Your task to perform on an android device: Open my contact list Image 0: 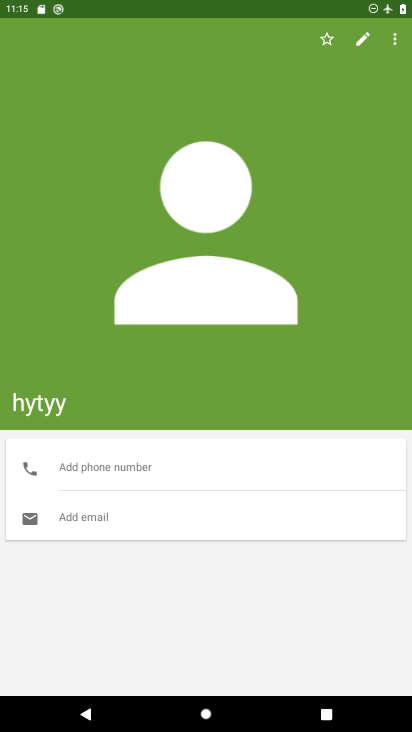
Step 0: press home button
Your task to perform on an android device: Open my contact list Image 1: 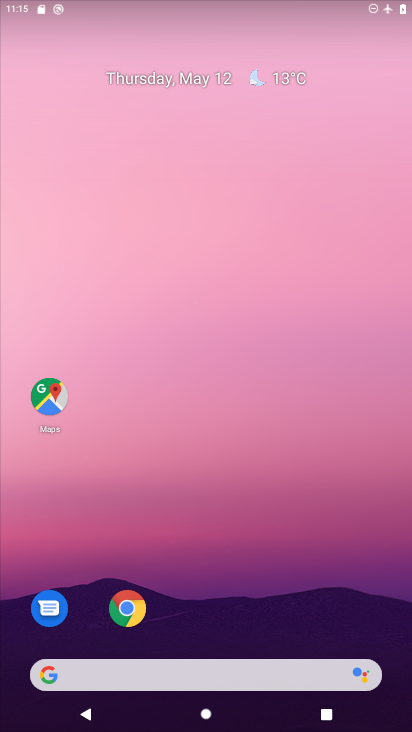
Step 1: drag from (266, 595) to (254, 176)
Your task to perform on an android device: Open my contact list Image 2: 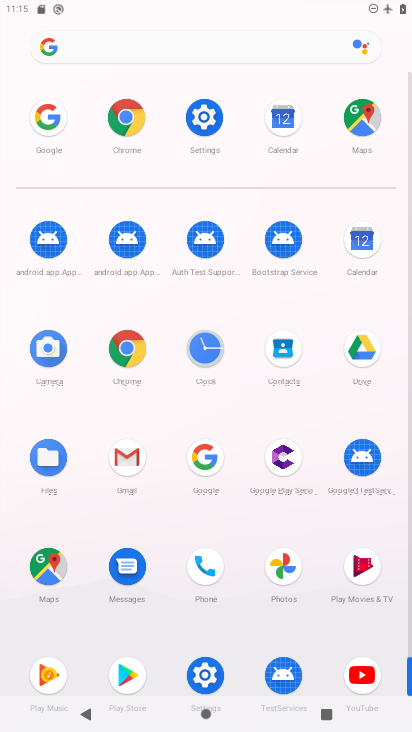
Step 2: click (291, 344)
Your task to perform on an android device: Open my contact list Image 3: 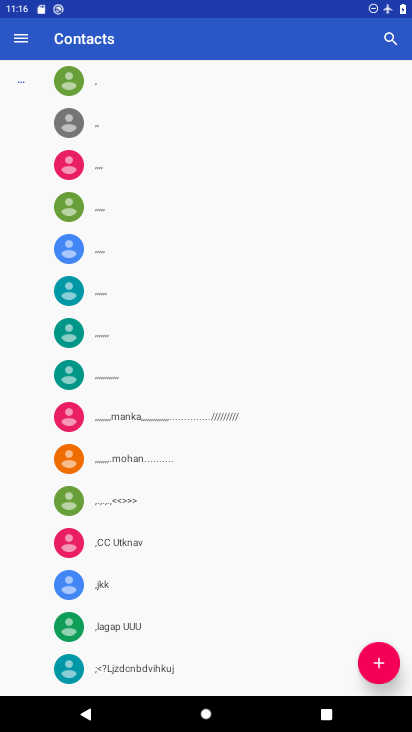
Step 3: task complete